Your task to perform on an android device: Open accessibility settings Image 0: 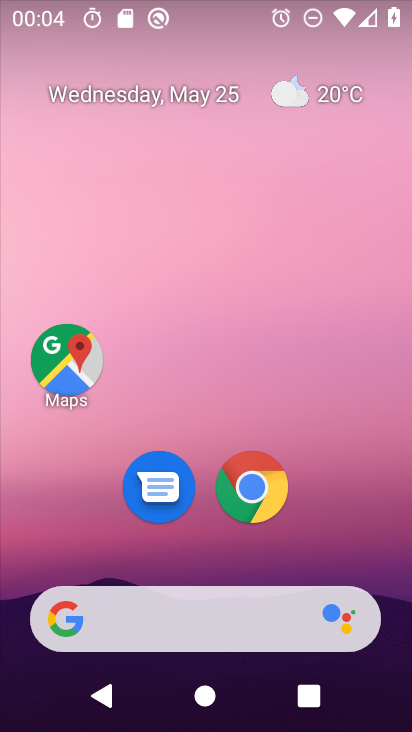
Step 0: drag from (354, 560) to (372, 729)
Your task to perform on an android device: Open accessibility settings Image 1: 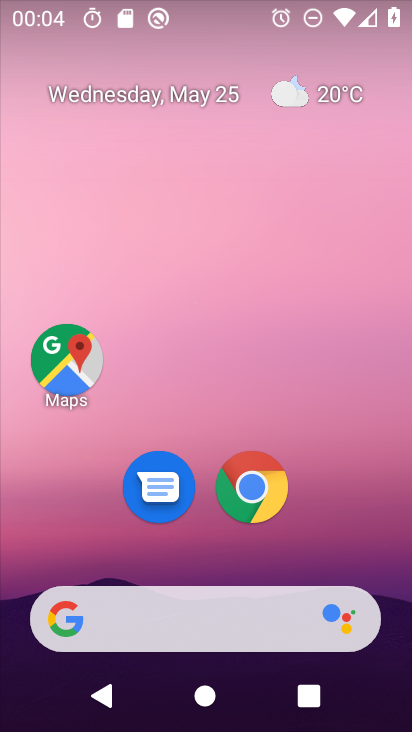
Step 1: drag from (352, 572) to (342, 21)
Your task to perform on an android device: Open accessibility settings Image 2: 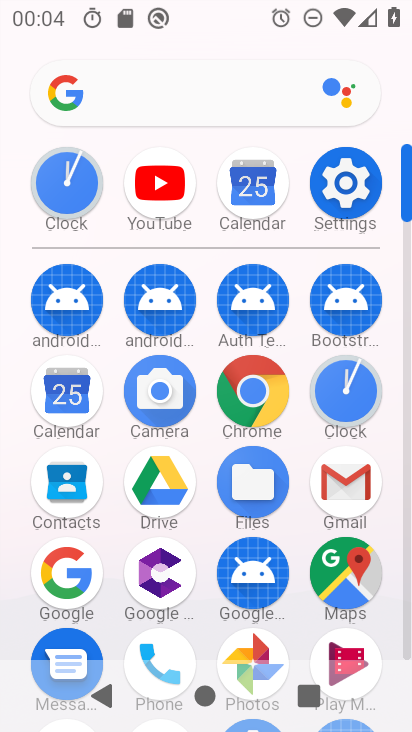
Step 2: click (342, 175)
Your task to perform on an android device: Open accessibility settings Image 3: 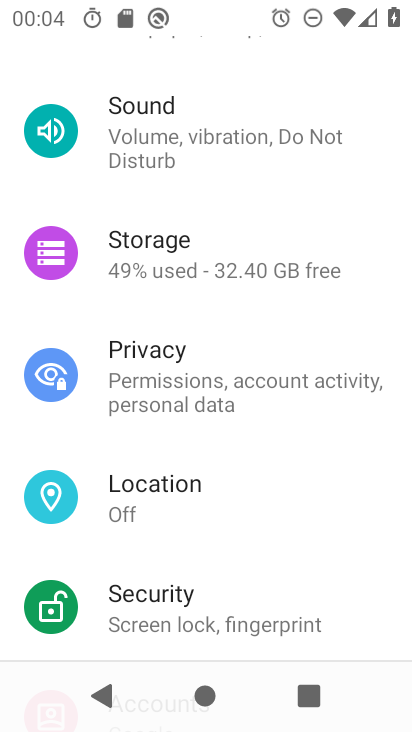
Step 3: drag from (281, 483) to (282, 148)
Your task to perform on an android device: Open accessibility settings Image 4: 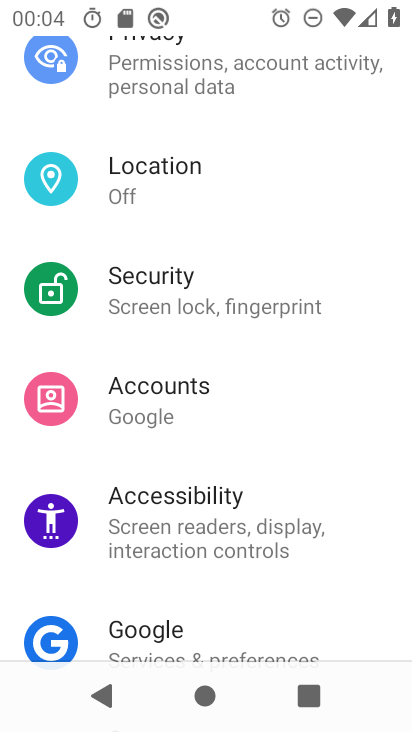
Step 4: click (171, 512)
Your task to perform on an android device: Open accessibility settings Image 5: 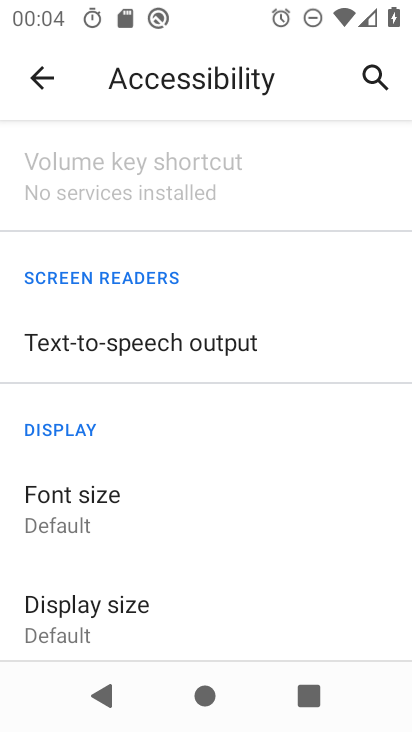
Step 5: task complete